Your task to perform on an android device: snooze an email in the gmail app Image 0: 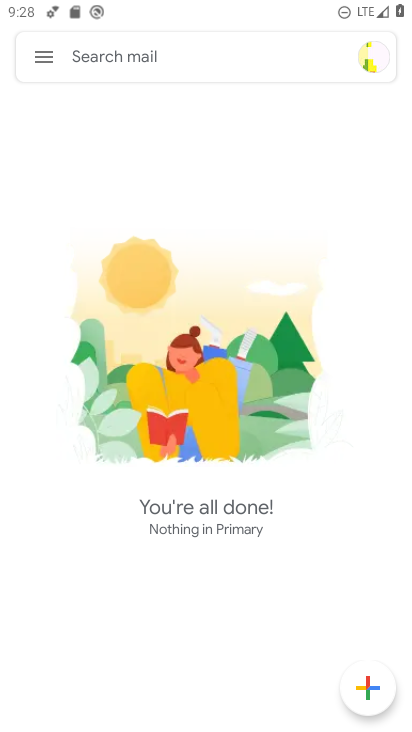
Step 0: click (47, 58)
Your task to perform on an android device: snooze an email in the gmail app Image 1: 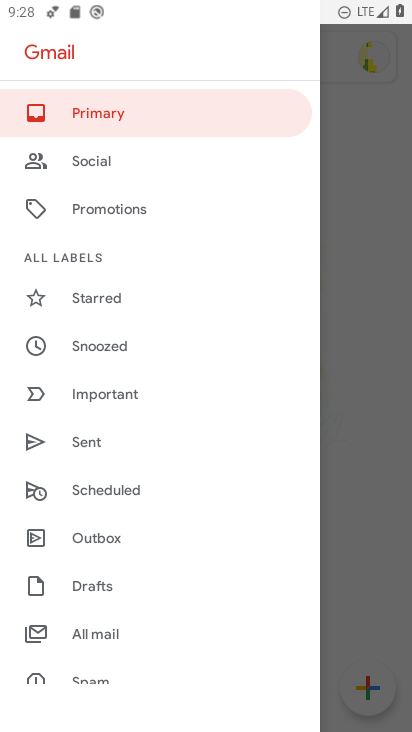
Step 1: drag from (136, 617) to (154, 201)
Your task to perform on an android device: snooze an email in the gmail app Image 2: 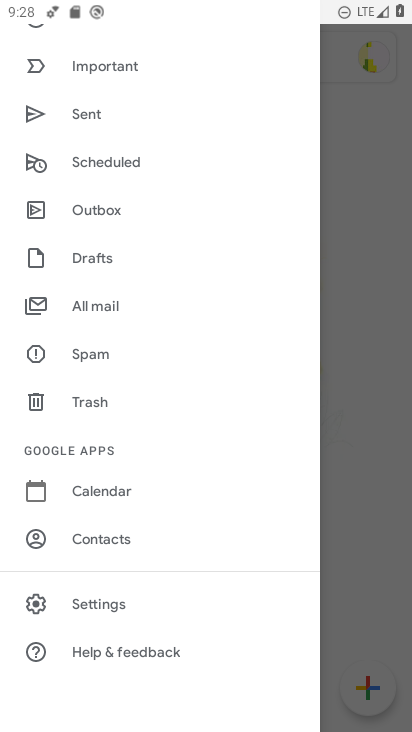
Step 2: click (38, 310)
Your task to perform on an android device: snooze an email in the gmail app Image 3: 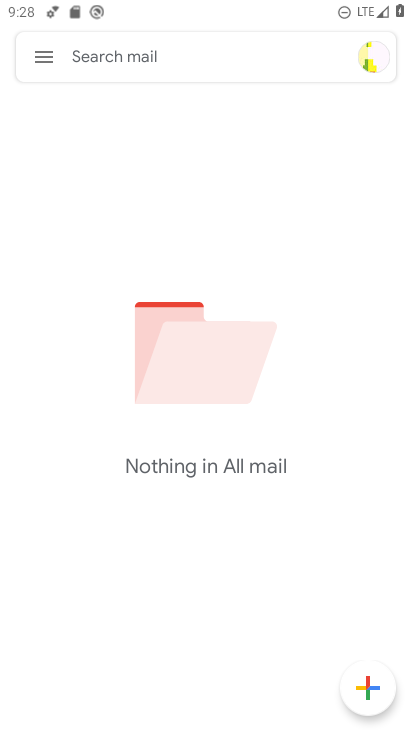
Step 3: task complete